Your task to perform on an android device: Open calendar and show me the third week of next month Image 0: 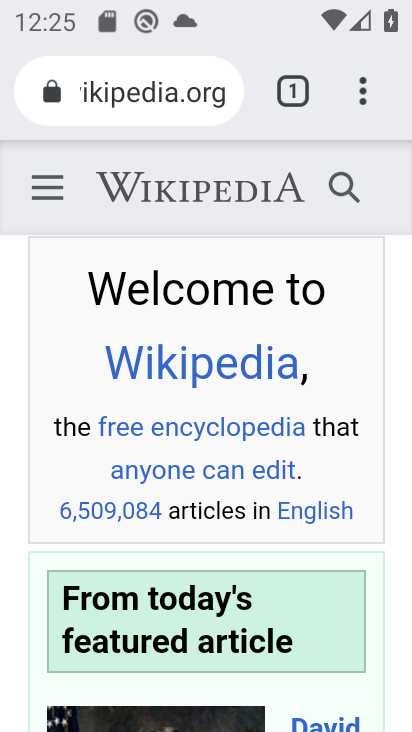
Step 0: press home button
Your task to perform on an android device: Open calendar and show me the third week of next month Image 1: 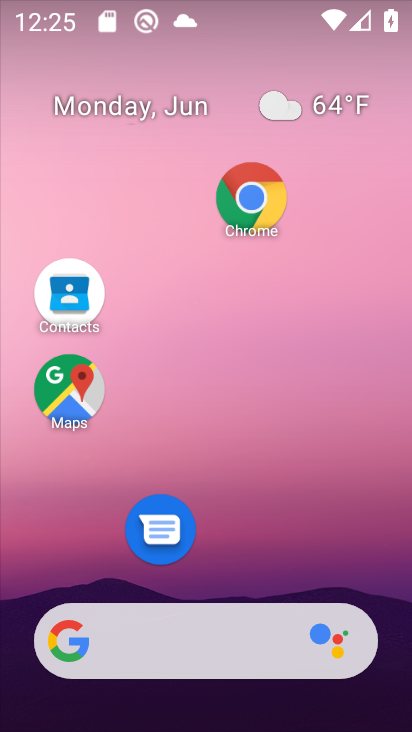
Step 1: drag from (315, 448) to (375, 2)
Your task to perform on an android device: Open calendar and show me the third week of next month Image 2: 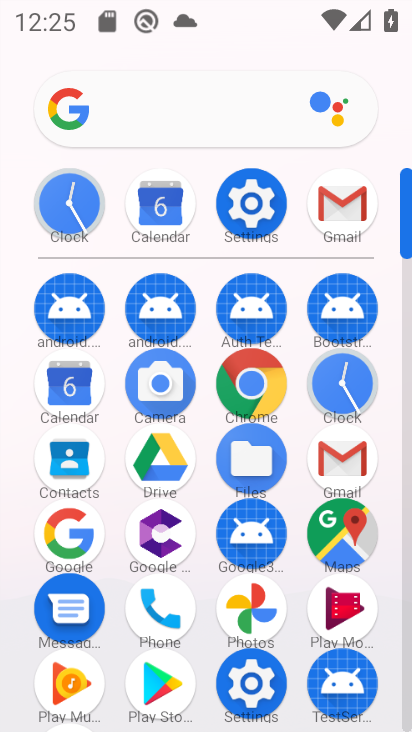
Step 2: click (63, 388)
Your task to perform on an android device: Open calendar and show me the third week of next month Image 3: 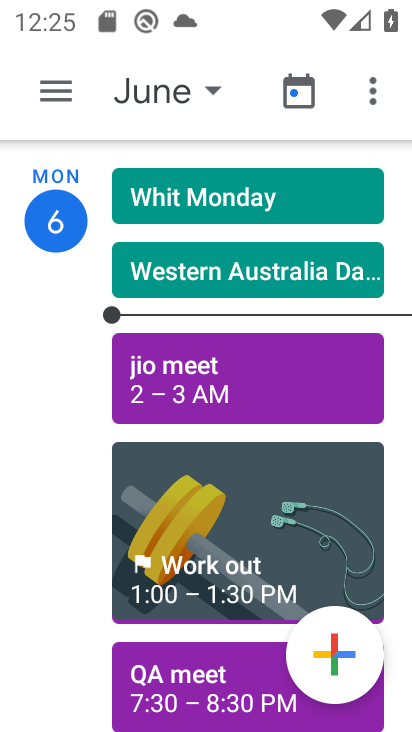
Step 3: click (224, 98)
Your task to perform on an android device: Open calendar and show me the third week of next month Image 4: 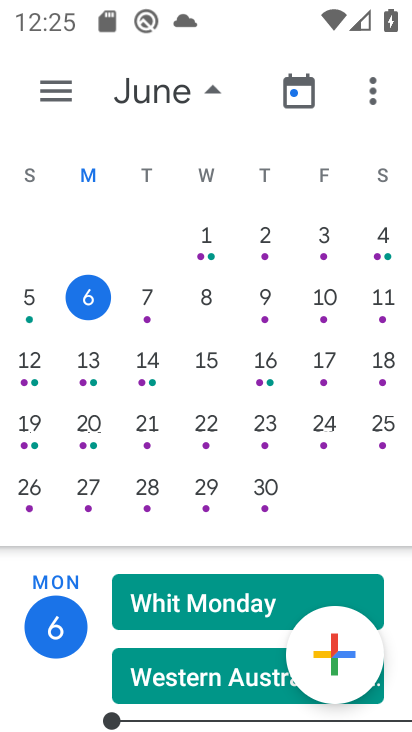
Step 4: drag from (367, 345) to (8, 355)
Your task to perform on an android device: Open calendar and show me the third week of next month Image 5: 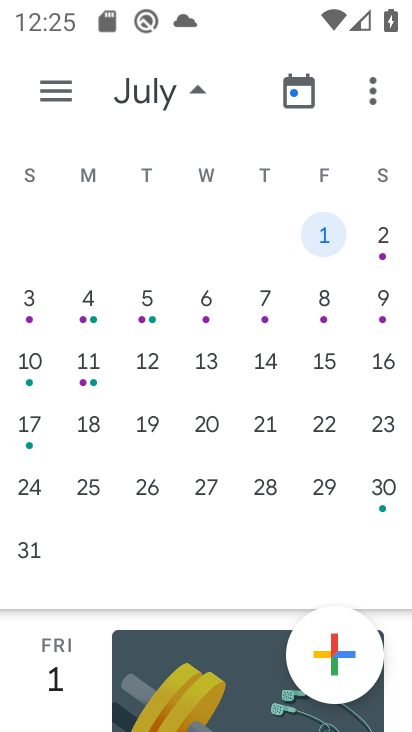
Step 5: click (56, 369)
Your task to perform on an android device: Open calendar and show me the third week of next month Image 6: 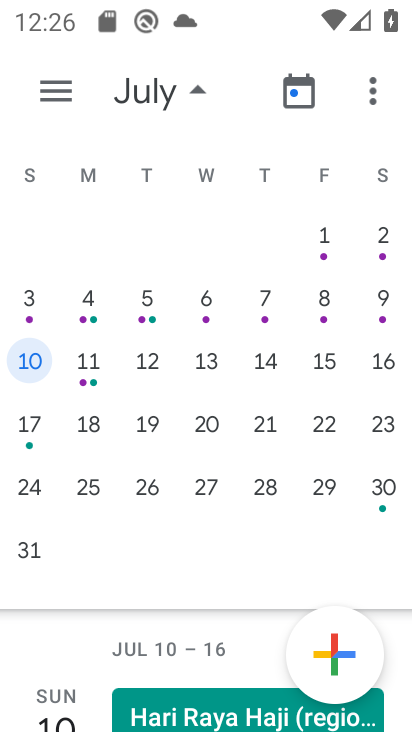
Step 6: task complete